Your task to perform on an android device: Add "usb-c" to the cart on amazon.com, then select checkout. Image 0: 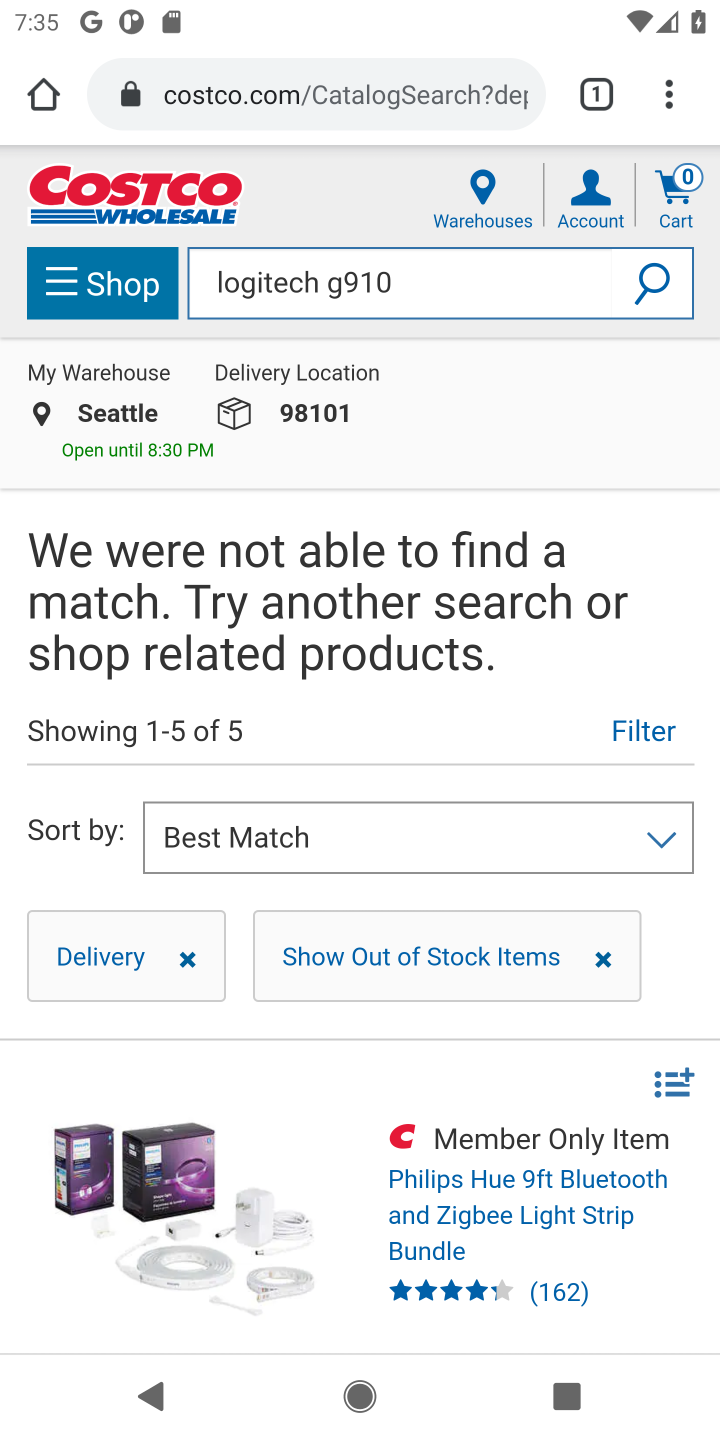
Step 0: click (274, 98)
Your task to perform on an android device: Add "usb-c" to the cart on amazon.com, then select checkout. Image 1: 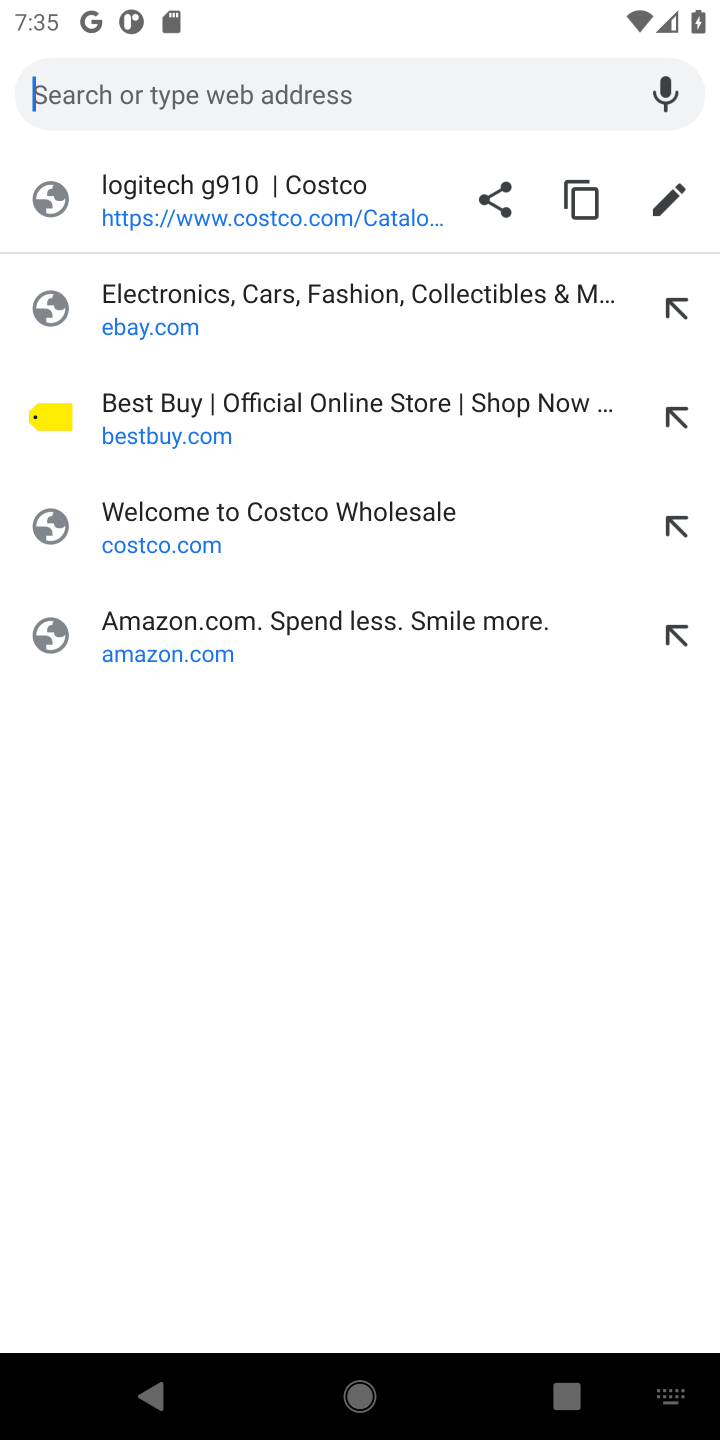
Step 1: click (157, 650)
Your task to perform on an android device: Add "usb-c" to the cart on amazon.com, then select checkout. Image 2: 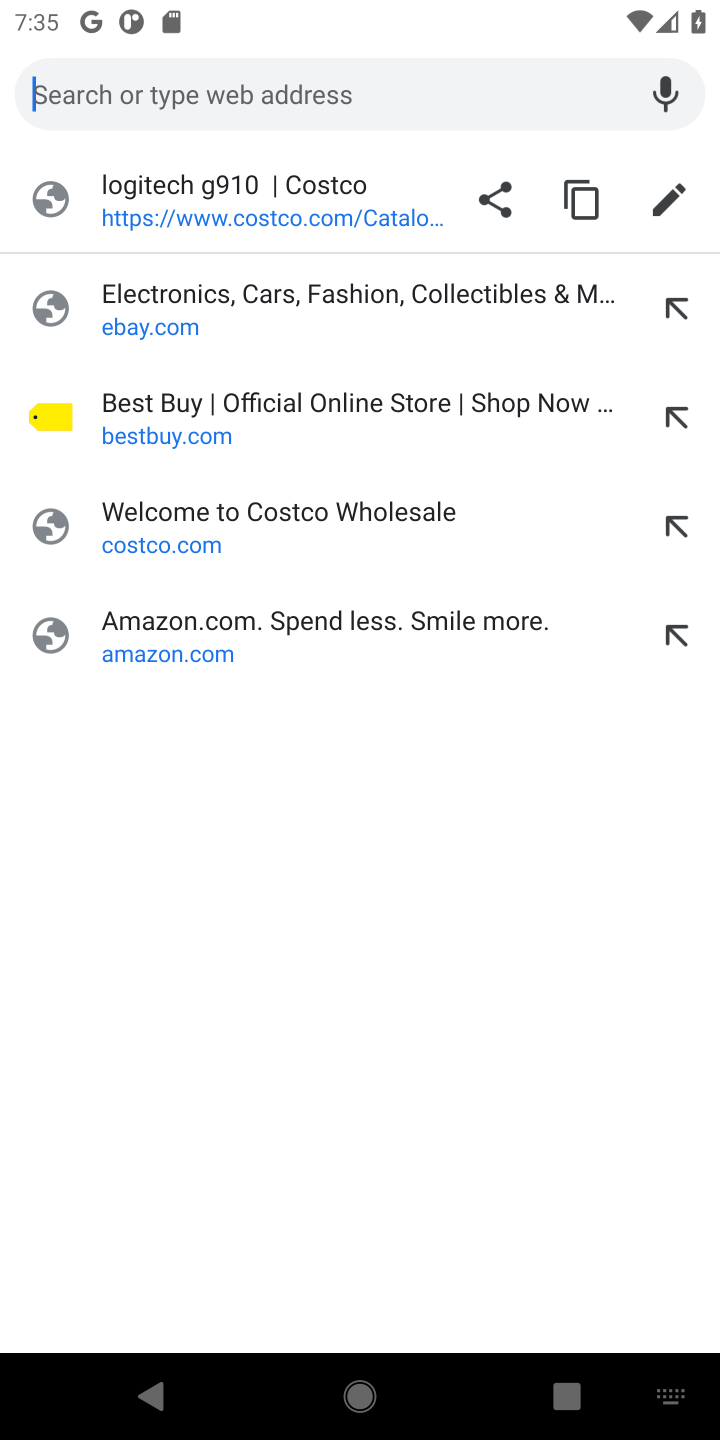
Step 2: click (163, 642)
Your task to perform on an android device: Add "usb-c" to the cart on amazon.com, then select checkout. Image 3: 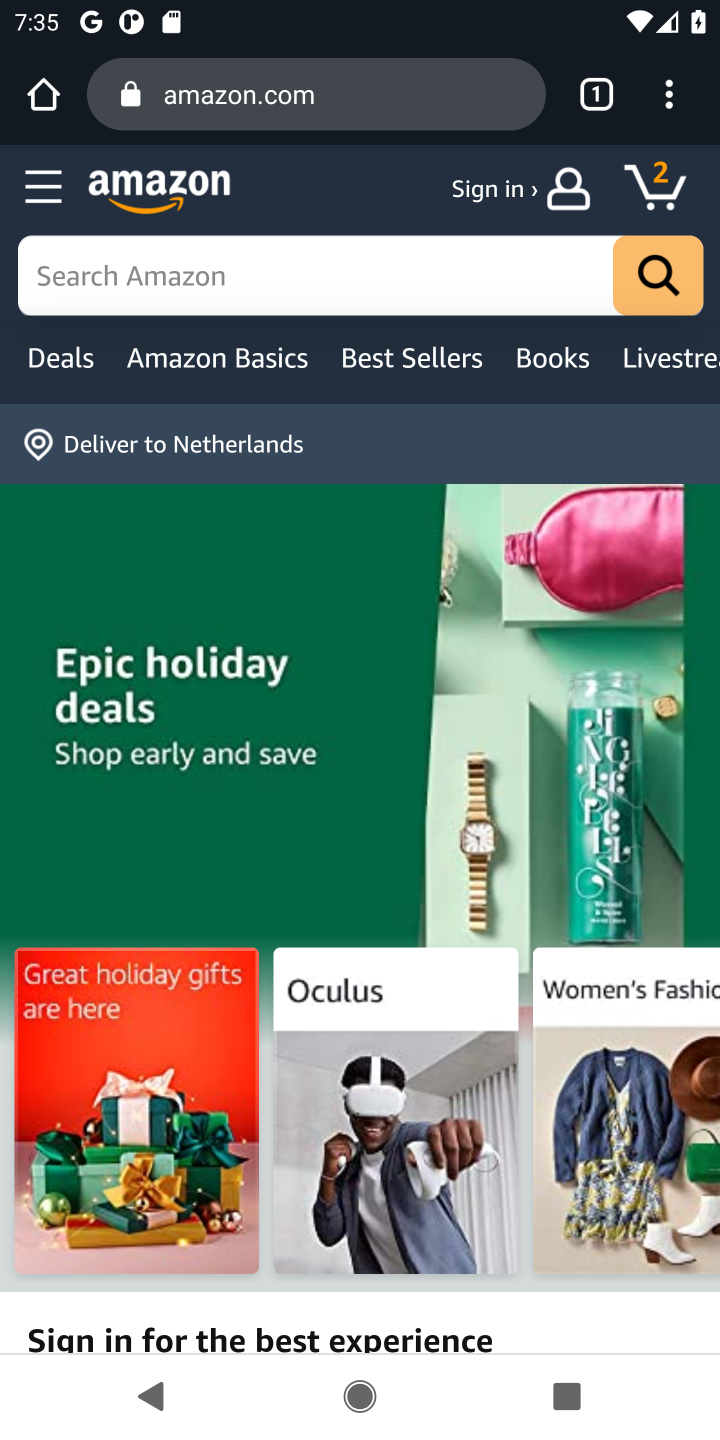
Step 3: click (152, 270)
Your task to perform on an android device: Add "usb-c" to the cart on amazon.com, then select checkout. Image 4: 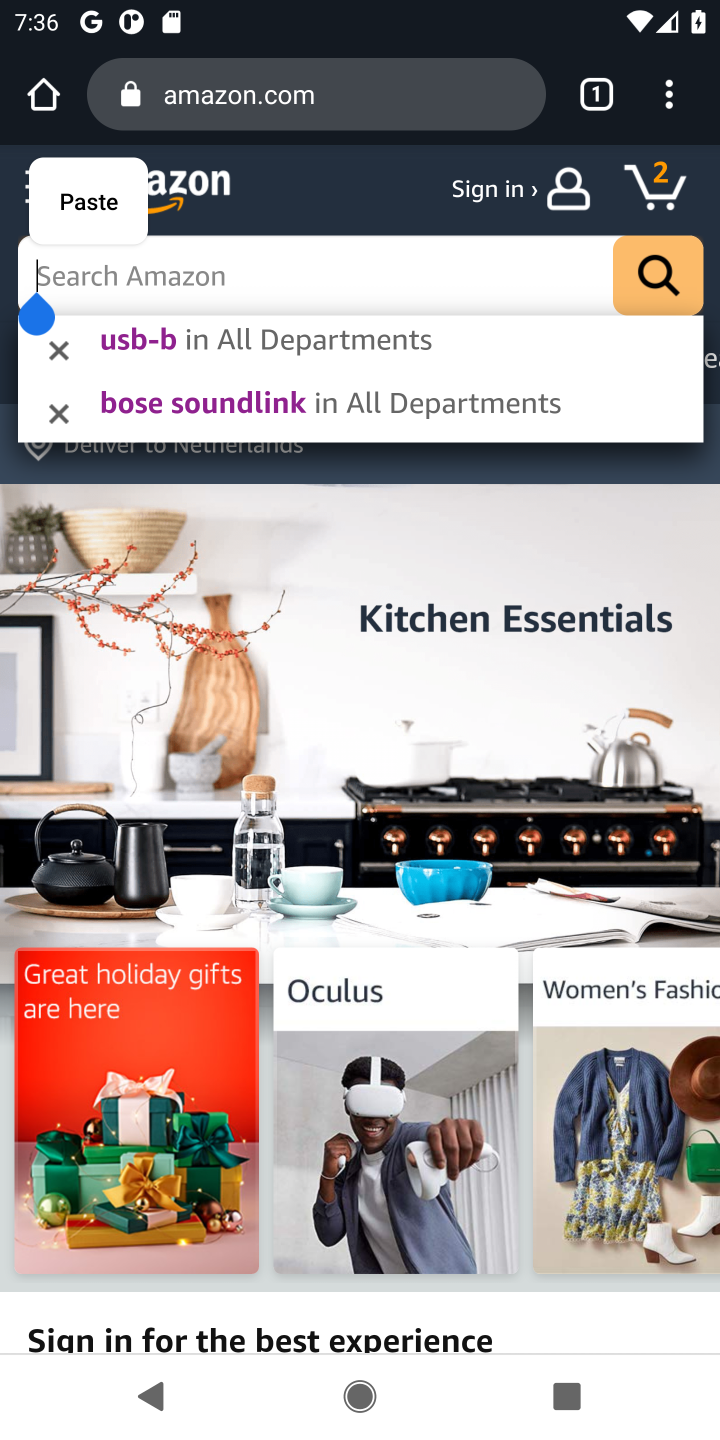
Step 4: type "usb-c"
Your task to perform on an android device: Add "usb-c" to the cart on amazon.com, then select checkout. Image 5: 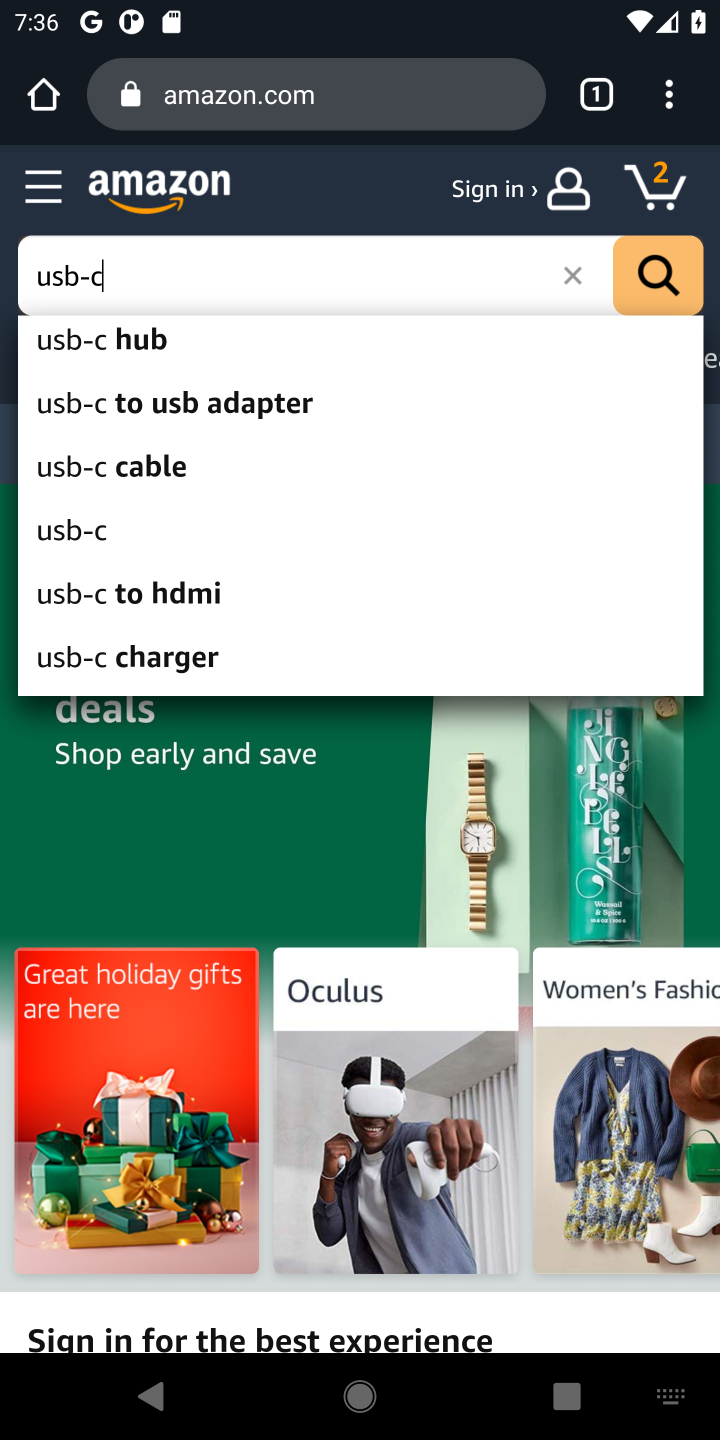
Step 5: click (112, 355)
Your task to perform on an android device: Add "usb-c" to the cart on amazon.com, then select checkout. Image 6: 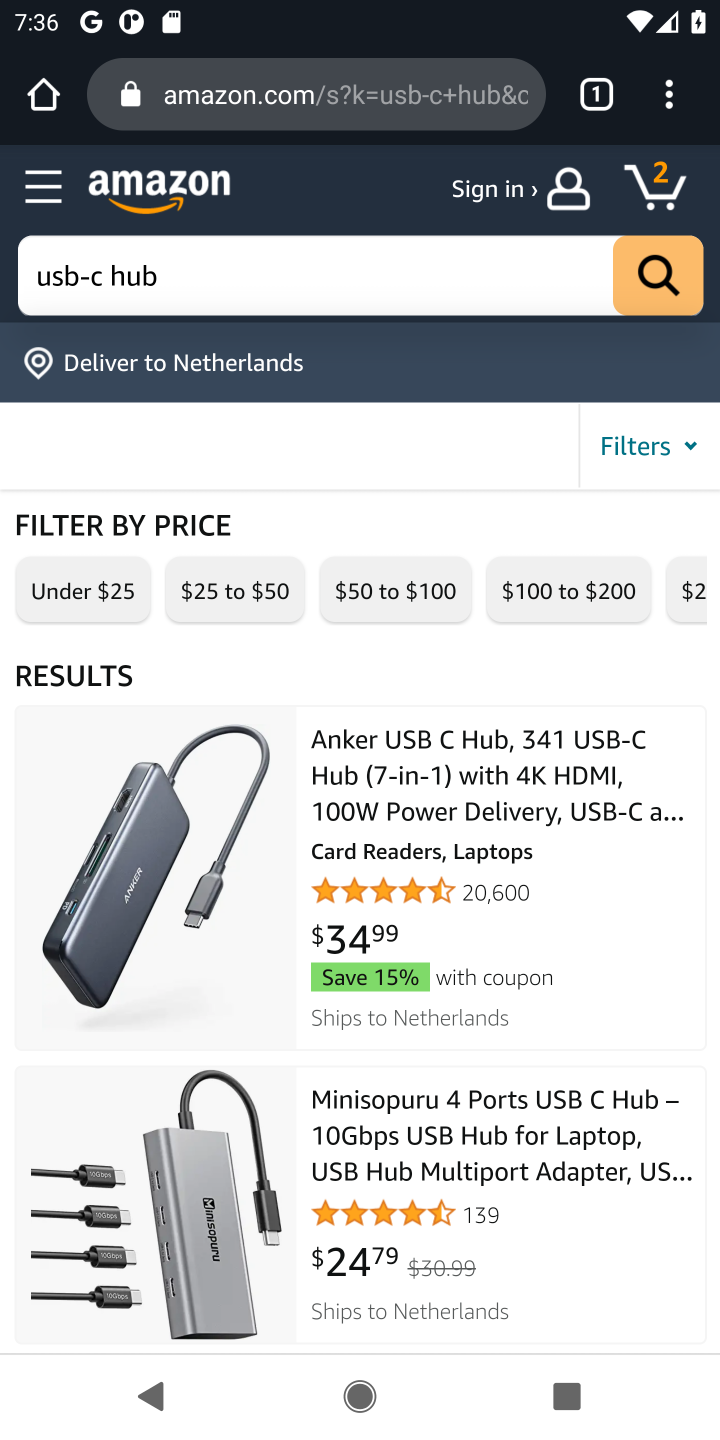
Step 6: click (503, 801)
Your task to perform on an android device: Add "usb-c" to the cart on amazon.com, then select checkout. Image 7: 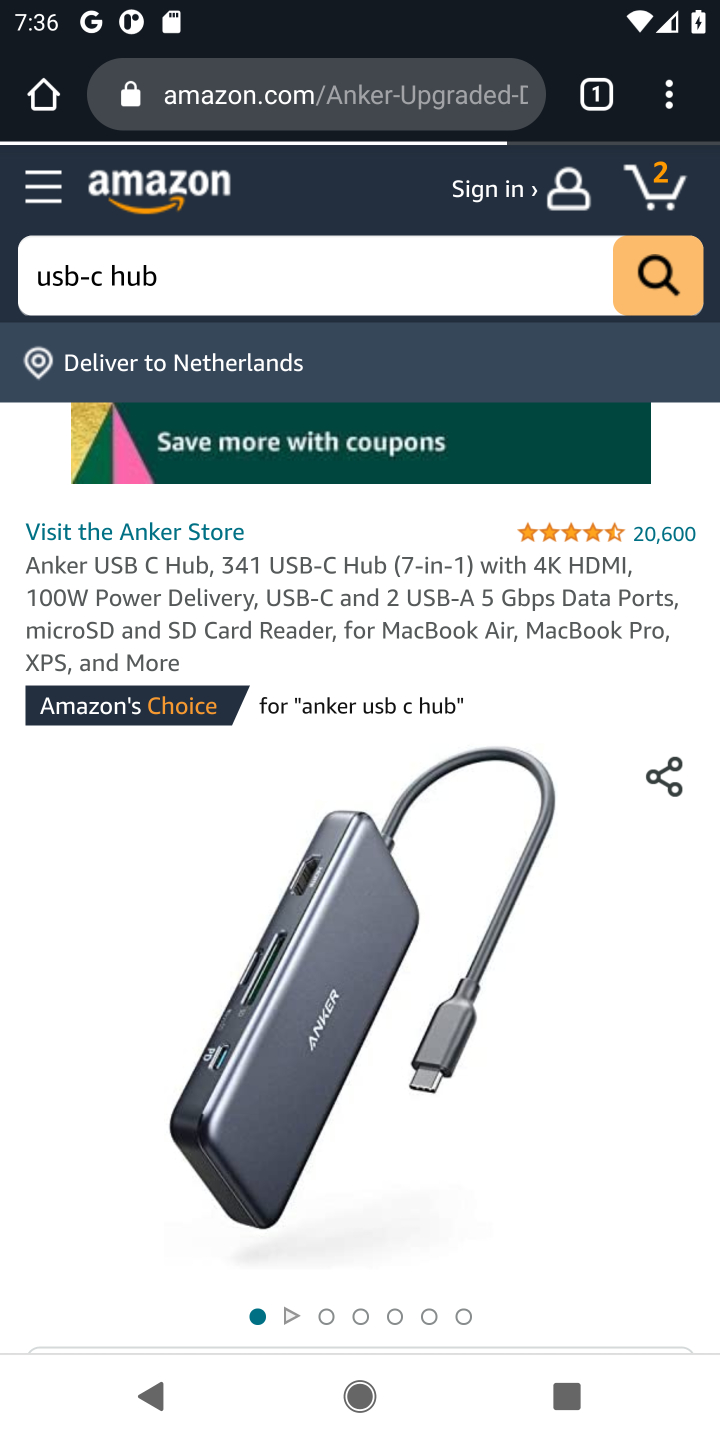
Step 7: drag from (427, 604) to (427, 219)
Your task to perform on an android device: Add "usb-c" to the cart on amazon.com, then select checkout. Image 8: 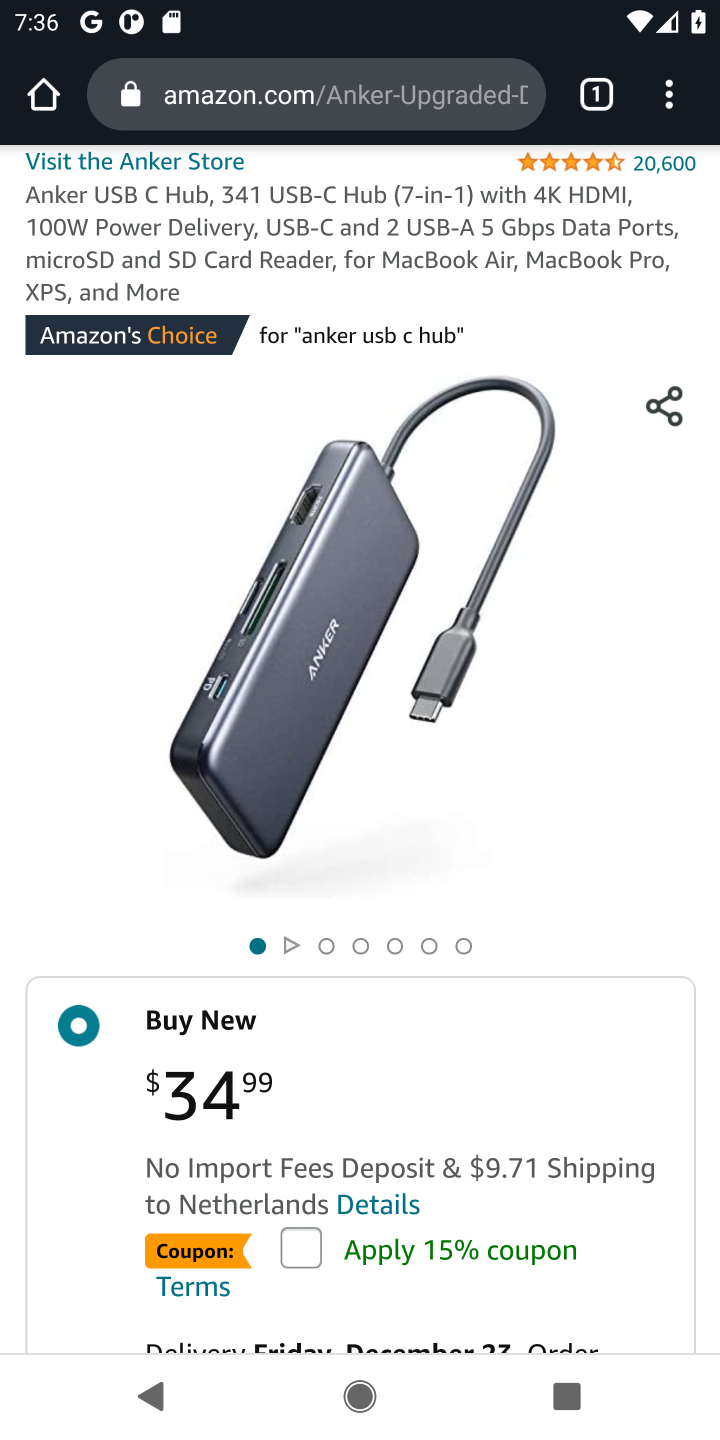
Step 8: drag from (411, 995) to (355, 282)
Your task to perform on an android device: Add "usb-c" to the cart on amazon.com, then select checkout. Image 9: 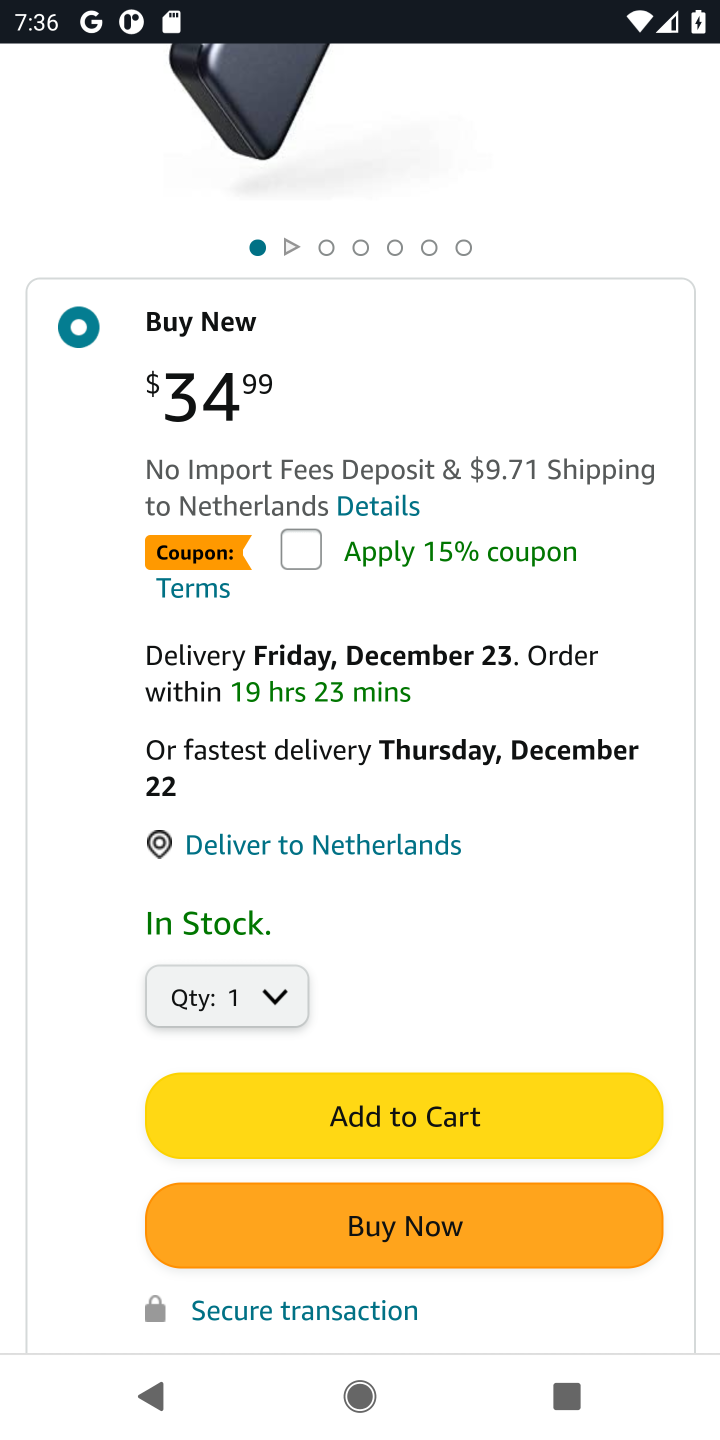
Step 9: click (424, 1114)
Your task to perform on an android device: Add "usb-c" to the cart on amazon.com, then select checkout. Image 10: 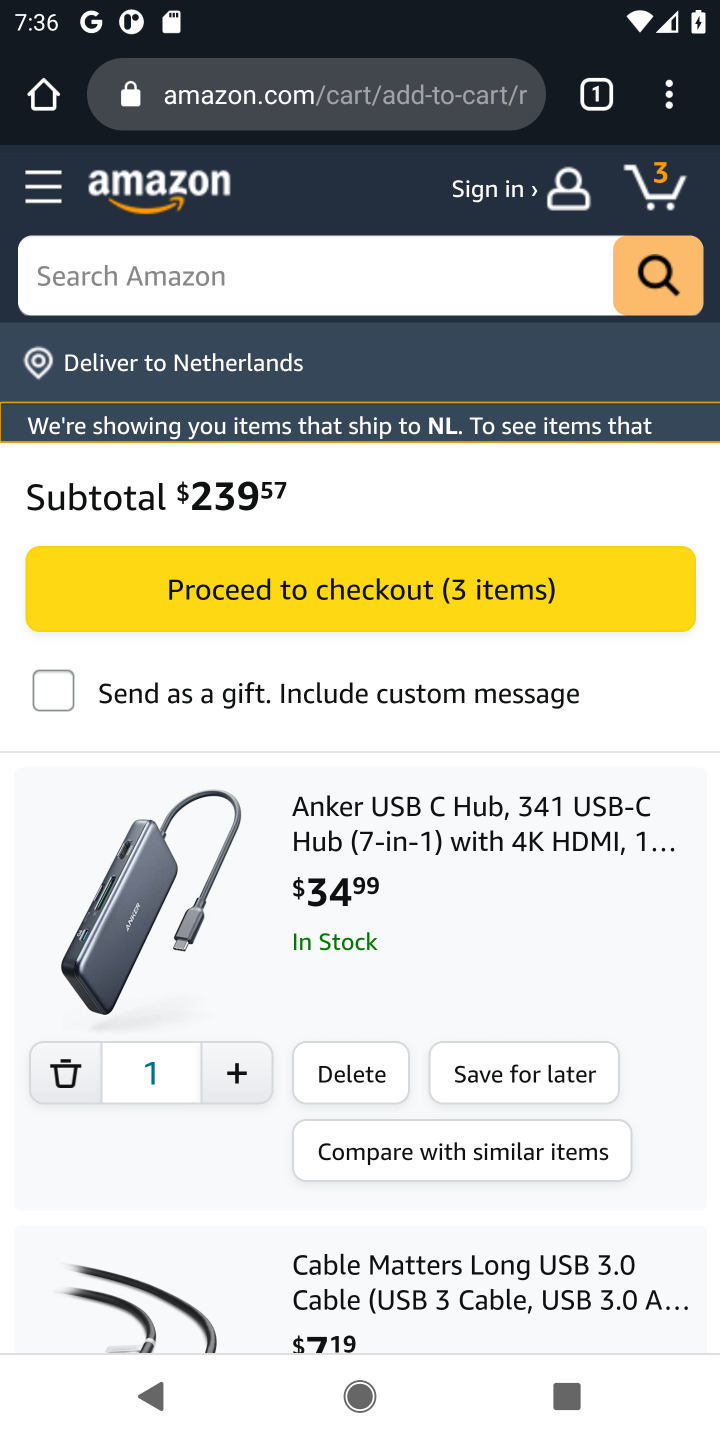
Step 10: click (242, 551)
Your task to perform on an android device: Add "usb-c" to the cart on amazon.com, then select checkout. Image 11: 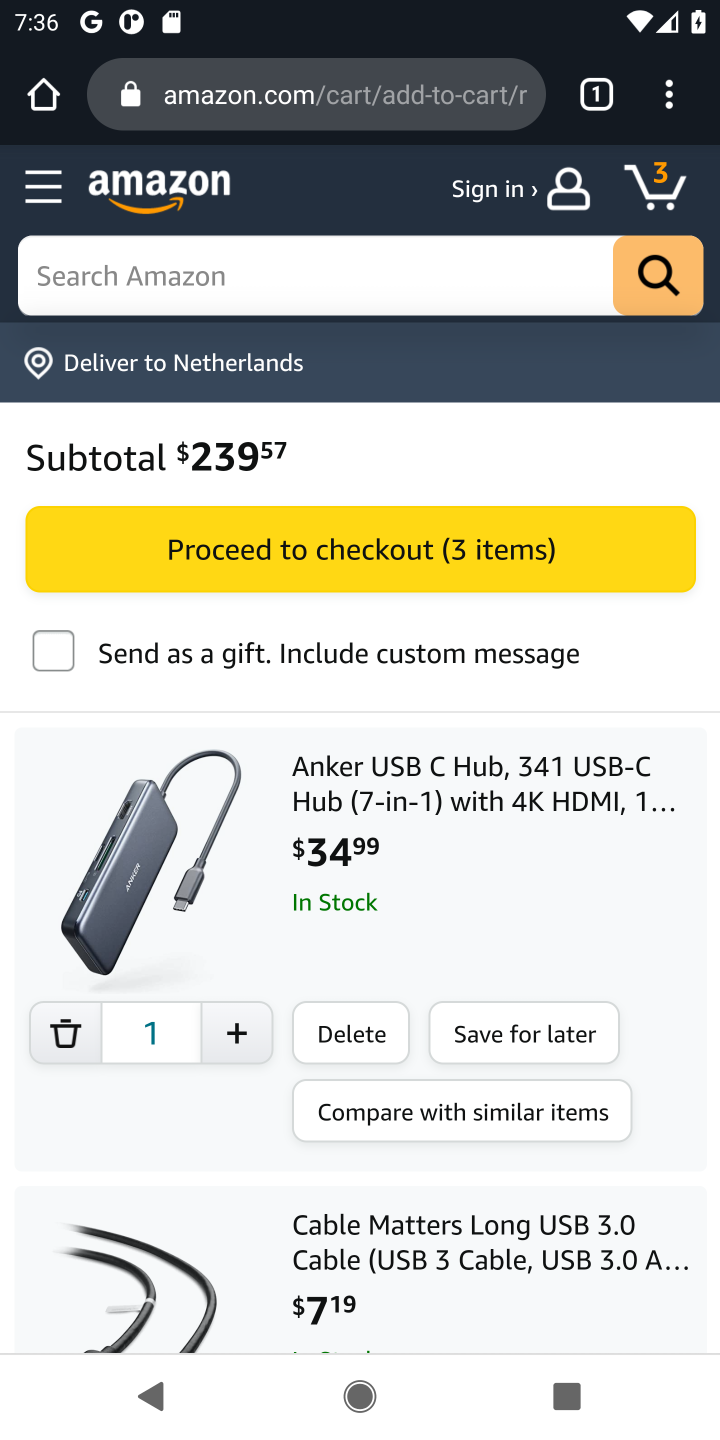
Step 11: click (313, 565)
Your task to perform on an android device: Add "usb-c" to the cart on amazon.com, then select checkout. Image 12: 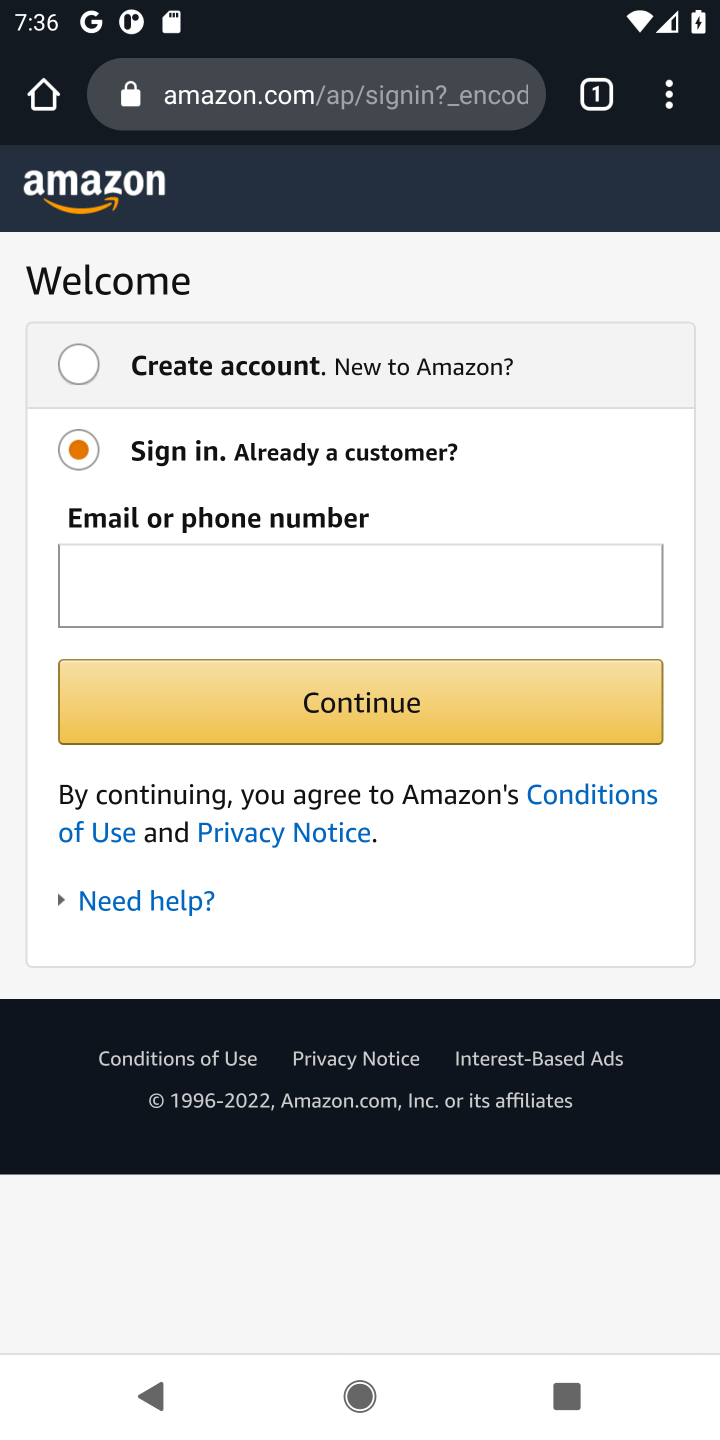
Step 12: task complete